Your task to perform on an android device: toggle priority inbox in the gmail app Image 0: 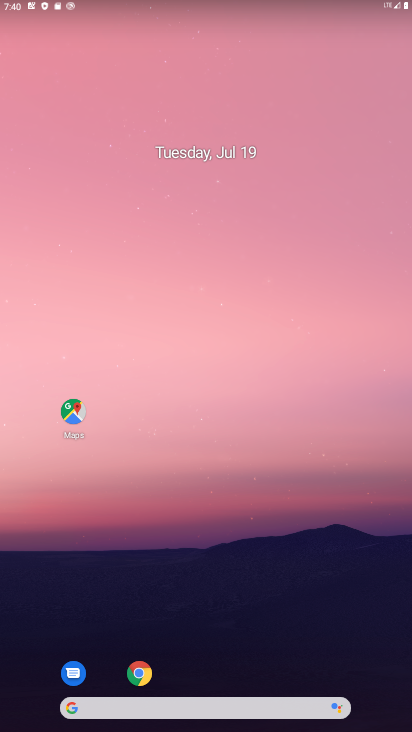
Step 0: drag from (391, 672) to (234, 1)
Your task to perform on an android device: toggle priority inbox in the gmail app Image 1: 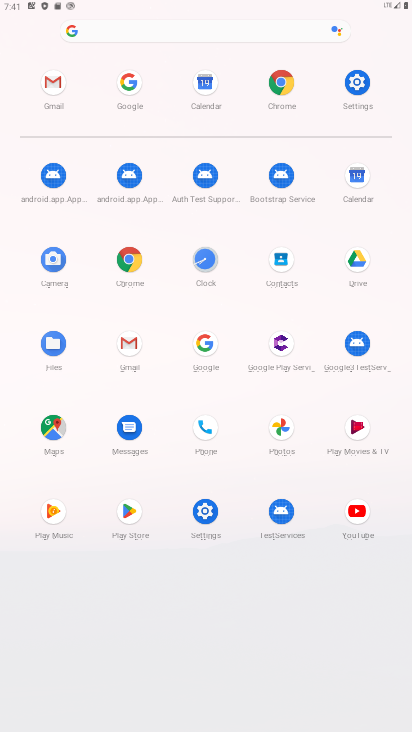
Step 1: click (128, 351)
Your task to perform on an android device: toggle priority inbox in the gmail app Image 2: 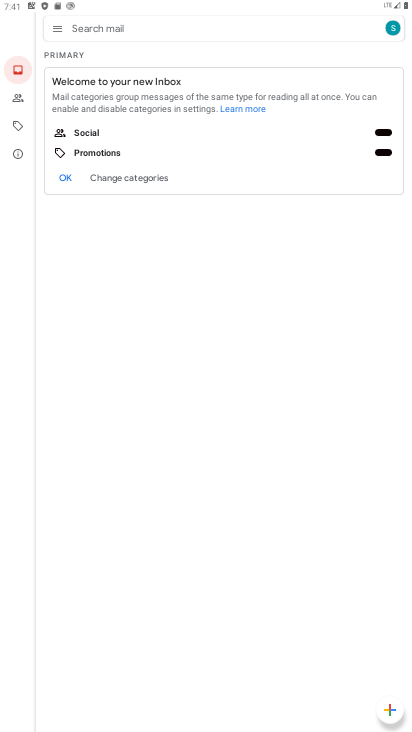
Step 2: click (52, 19)
Your task to perform on an android device: toggle priority inbox in the gmail app Image 3: 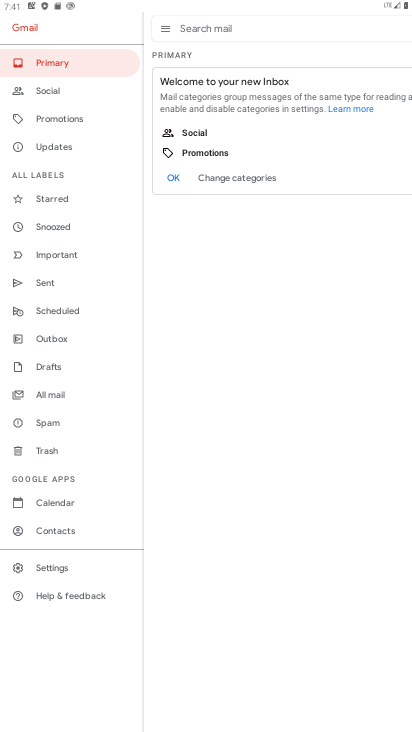
Step 3: click (55, 562)
Your task to perform on an android device: toggle priority inbox in the gmail app Image 4: 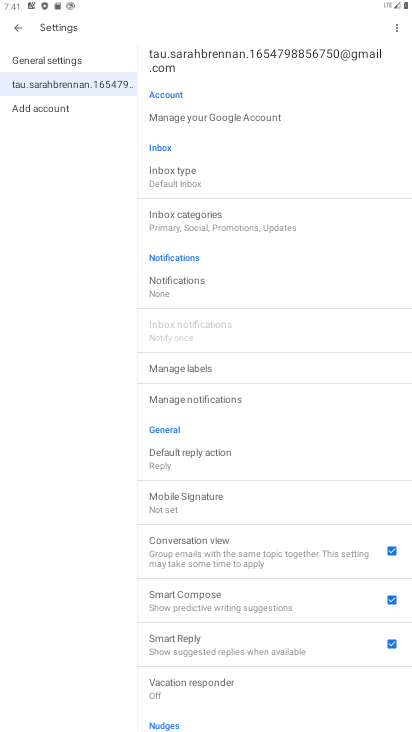
Step 4: drag from (201, 157) to (211, 723)
Your task to perform on an android device: toggle priority inbox in the gmail app Image 5: 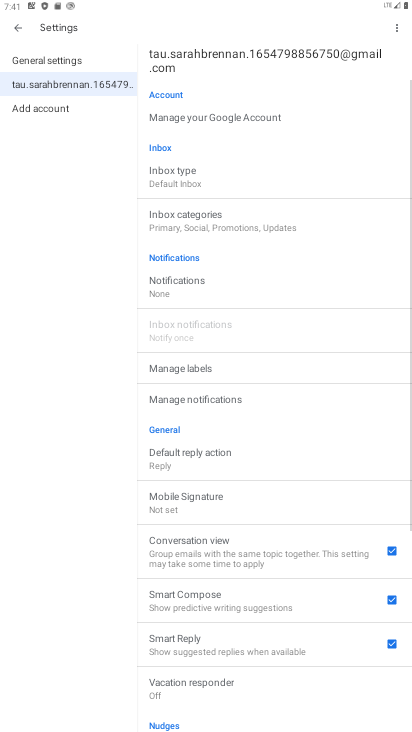
Step 5: click (198, 179)
Your task to perform on an android device: toggle priority inbox in the gmail app Image 6: 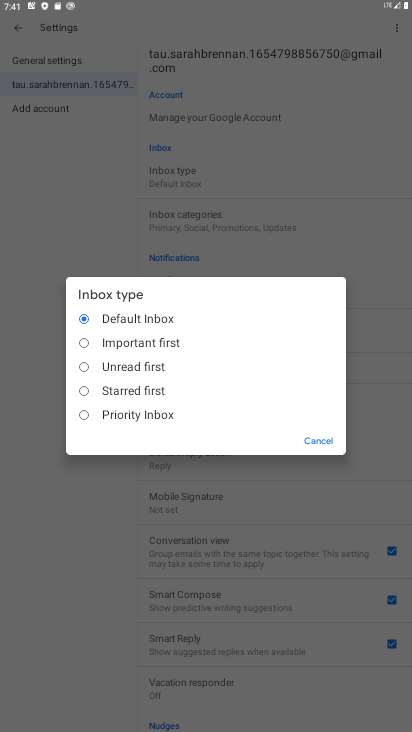
Step 6: task complete